Your task to perform on an android device: Search for "usb-c to usb-b" on costco.com, select the first entry, and add it to the cart. Image 0: 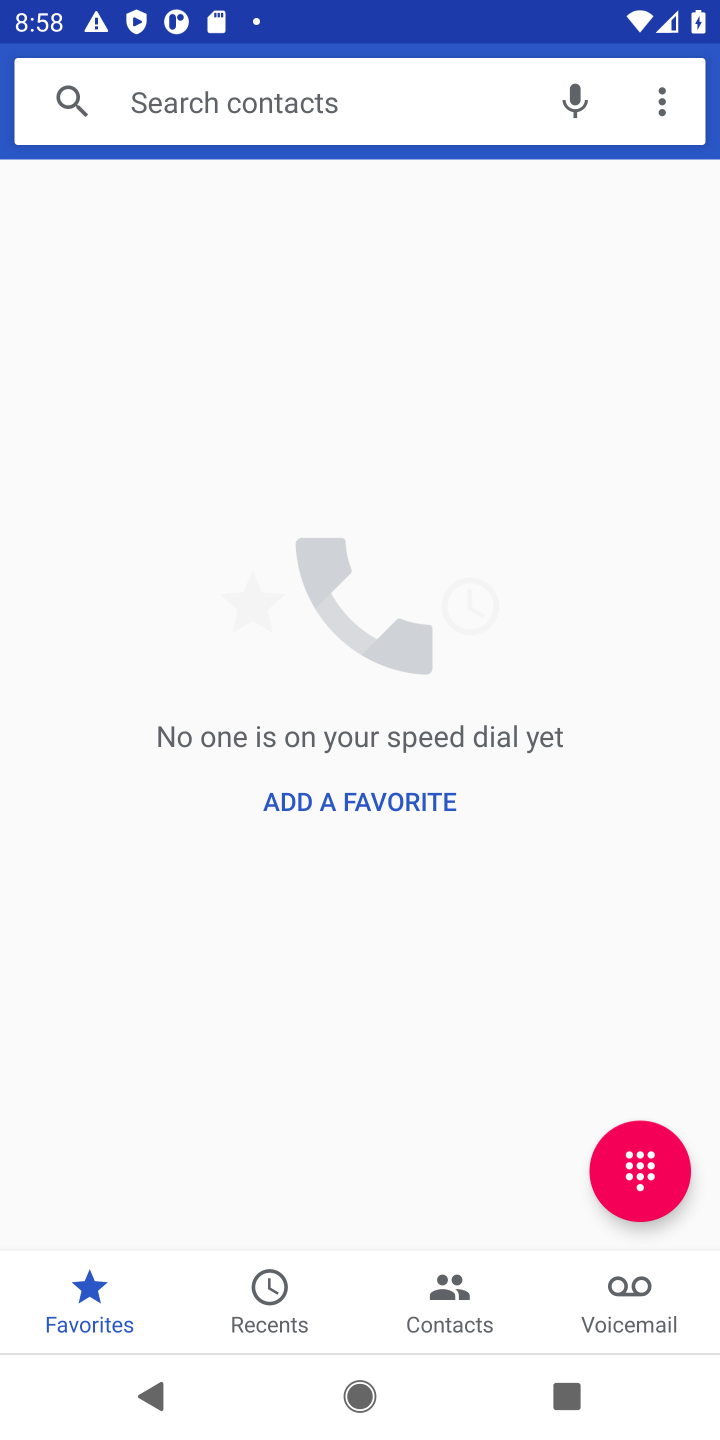
Step 0: press home button
Your task to perform on an android device: Search for "usb-c to usb-b" on costco.com, select the first entry, and add it to the cart. Image 1: 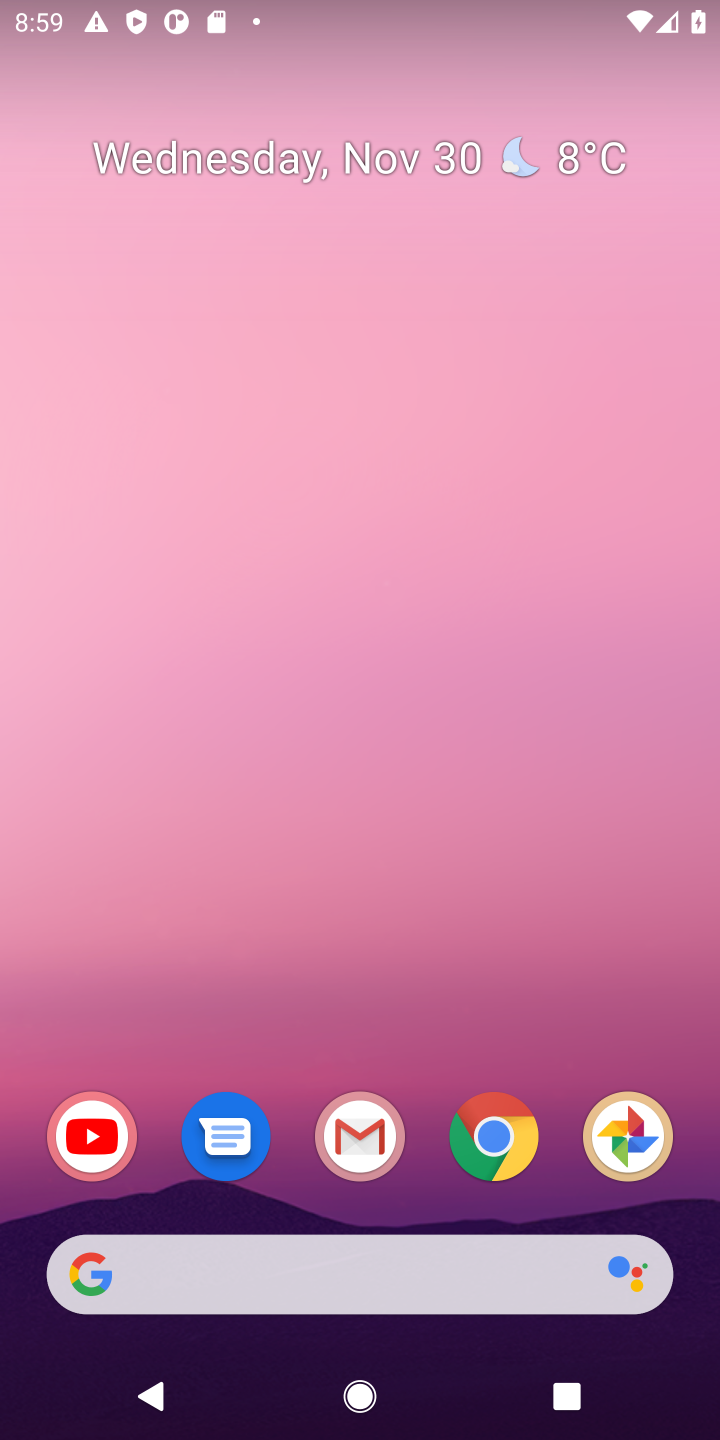
Step 1: click (511, 1139)
Your task to perform on an android device: Search for "usb-c to usb-b" on costco.com, select the first entry, and add it to the cart. Image 2: 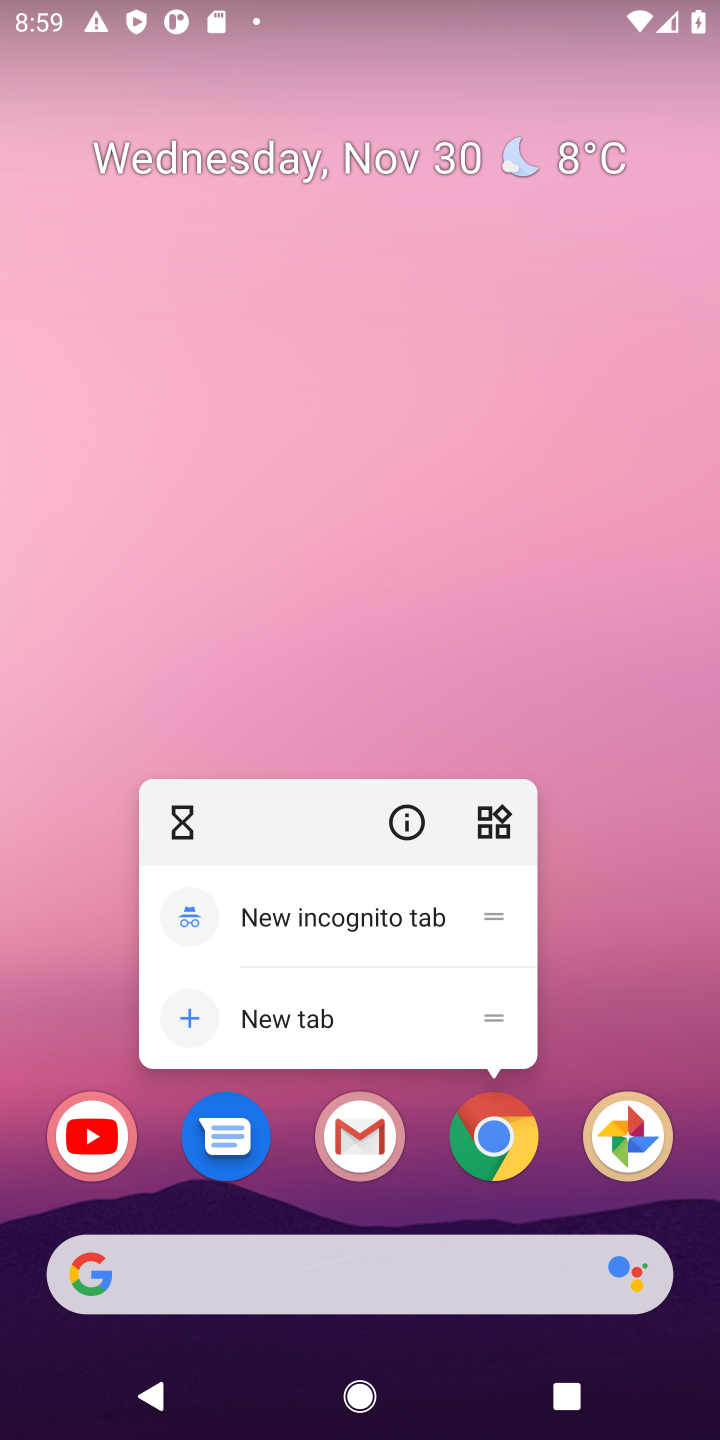
Step 2: click (511, 1139)
Your task to perform on an android device: Search for "usb-c to usb-b" on costco.com, select the first entry, and add it to the cart. Image 3: 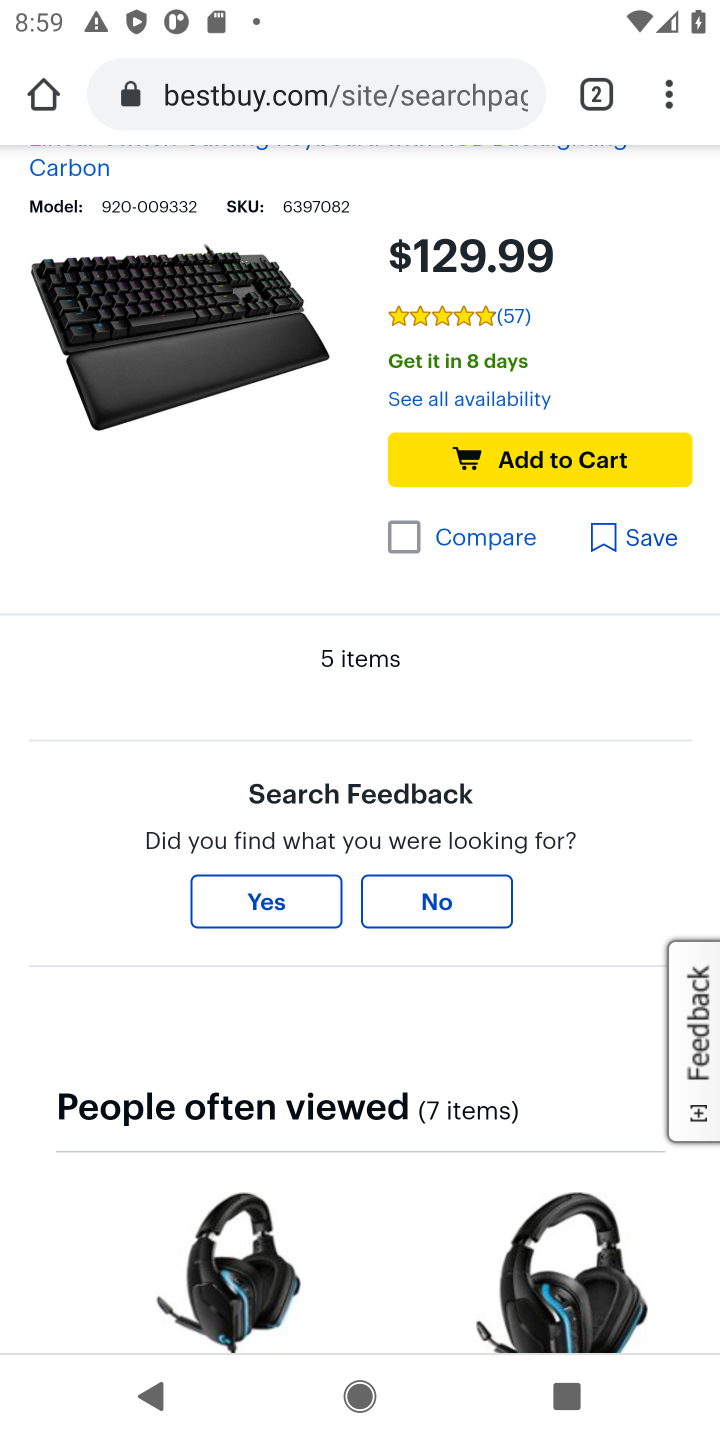
Step 3: click (318, 97)
Your task to perform on an android device: Search for "usb-c to usb-b" on costco.com, select the first entry, and add it to the cart. Image 4: 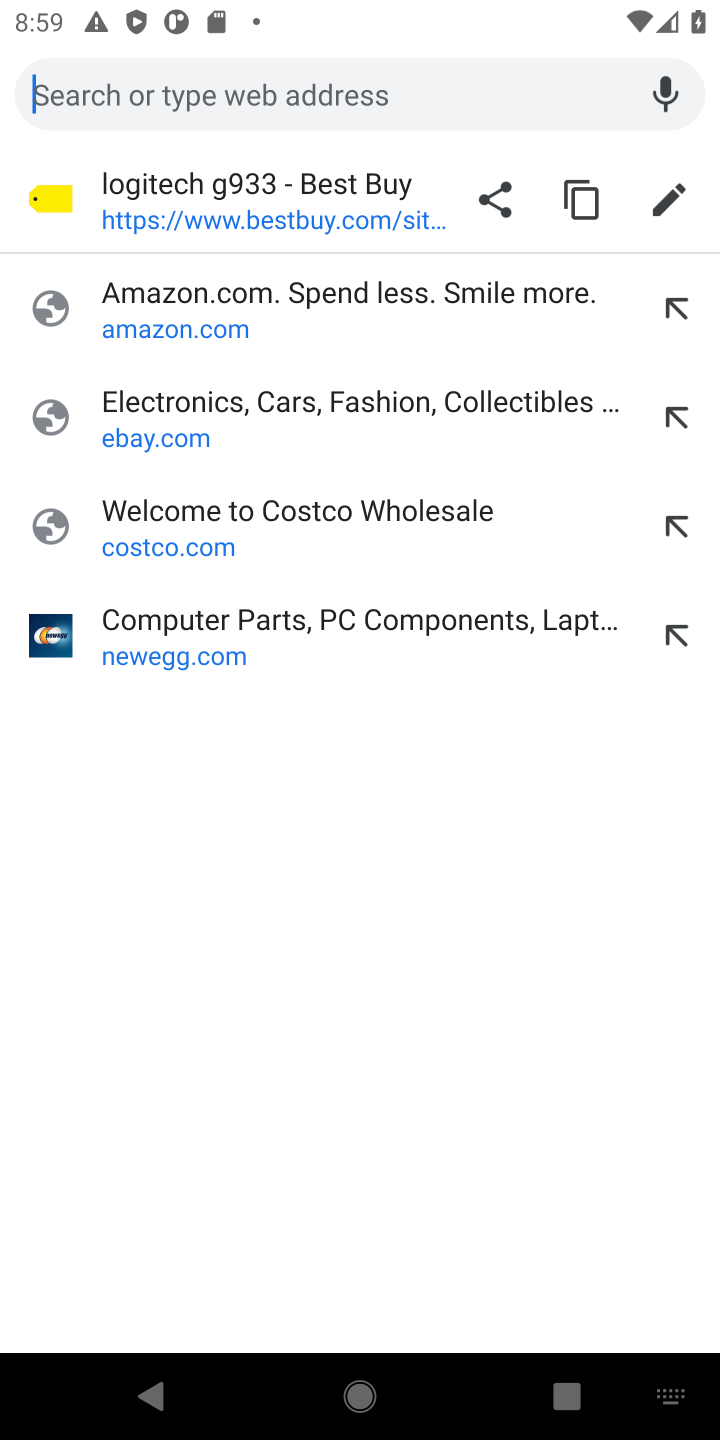
Step 4: click (147, 530)
Your task to perform on an android device: Search for "usb-c to usb-b" on costco.com, select the first entry, and add it to the cart. Image 5: 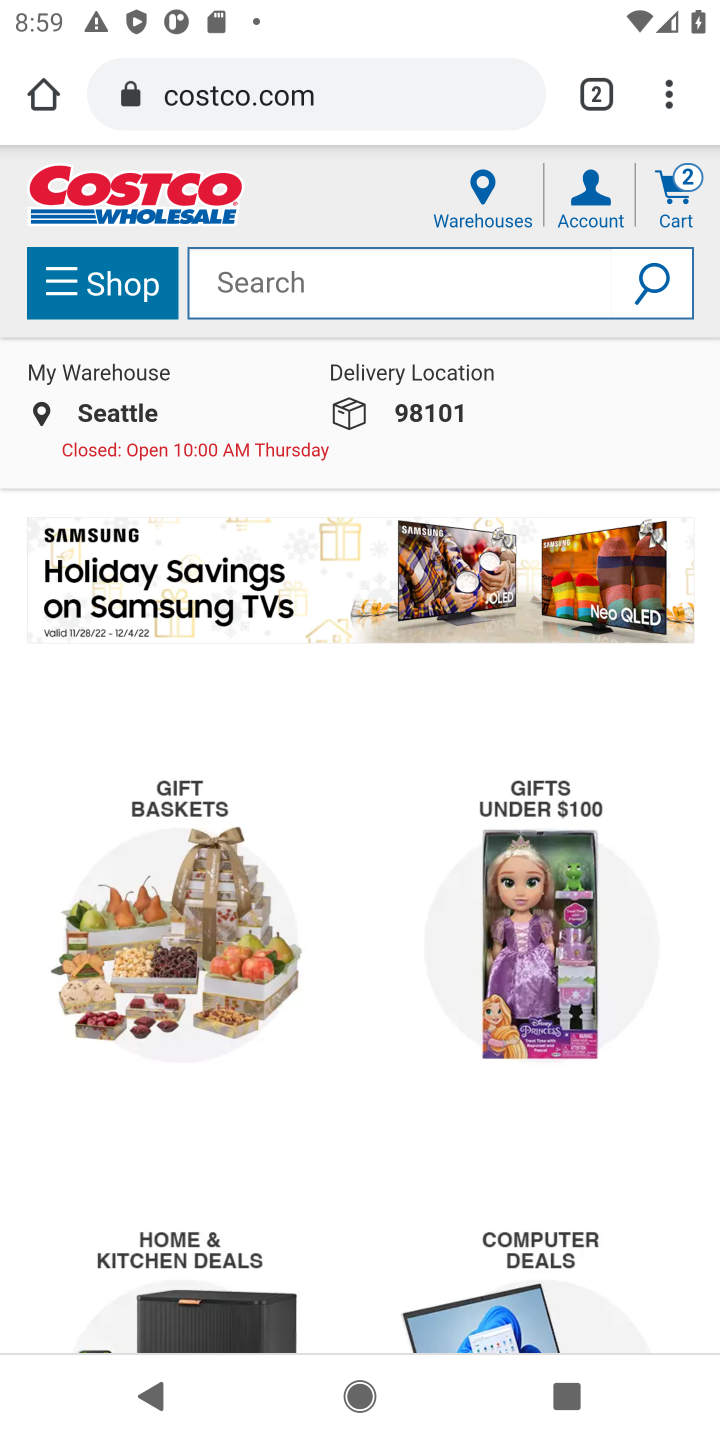
Step 5: click (270, 279)
Your task to perform on an android device: Search for "usb-c to usb-b" on costco.com, select the first entry, and add it to the cart. Image 6: 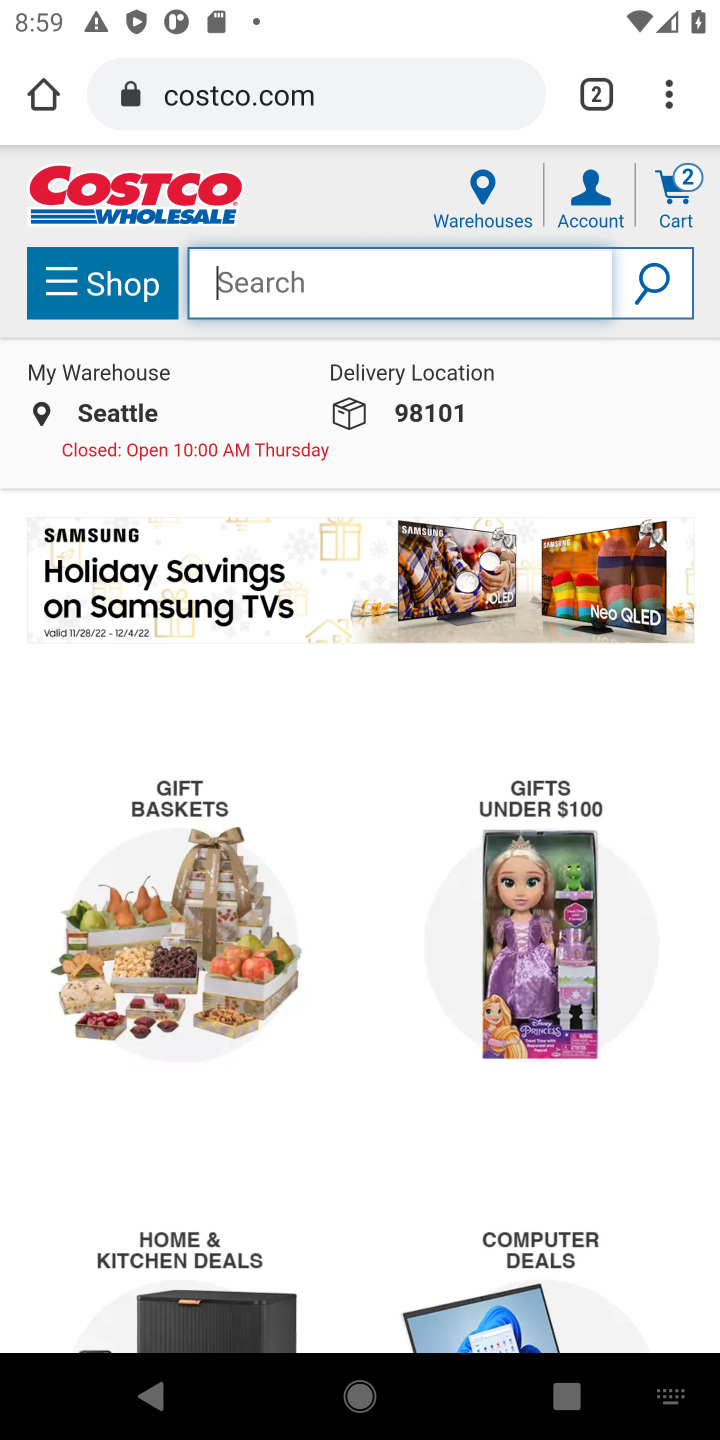
Step 6: click (256, 298)
Your task to perform on an android device: Search for "usb-c to usb-b" on costco.com, select the first entry, and add it to the cart. Image 7: 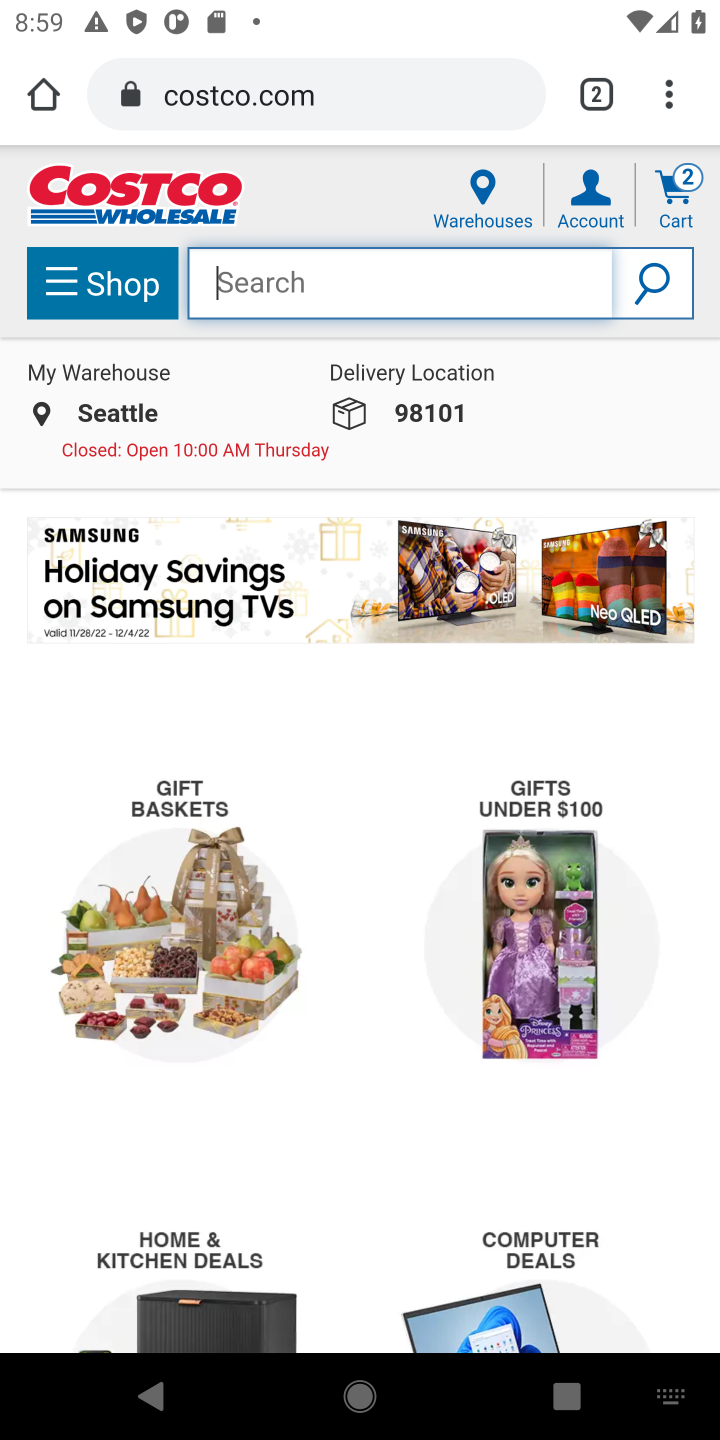
Step 7: type "usb-c to usb-b"
Your task to perform on an android device: Search for "usb-c to usb-b" on costco.com, select the first entry, and add it to the cart. Image 8: 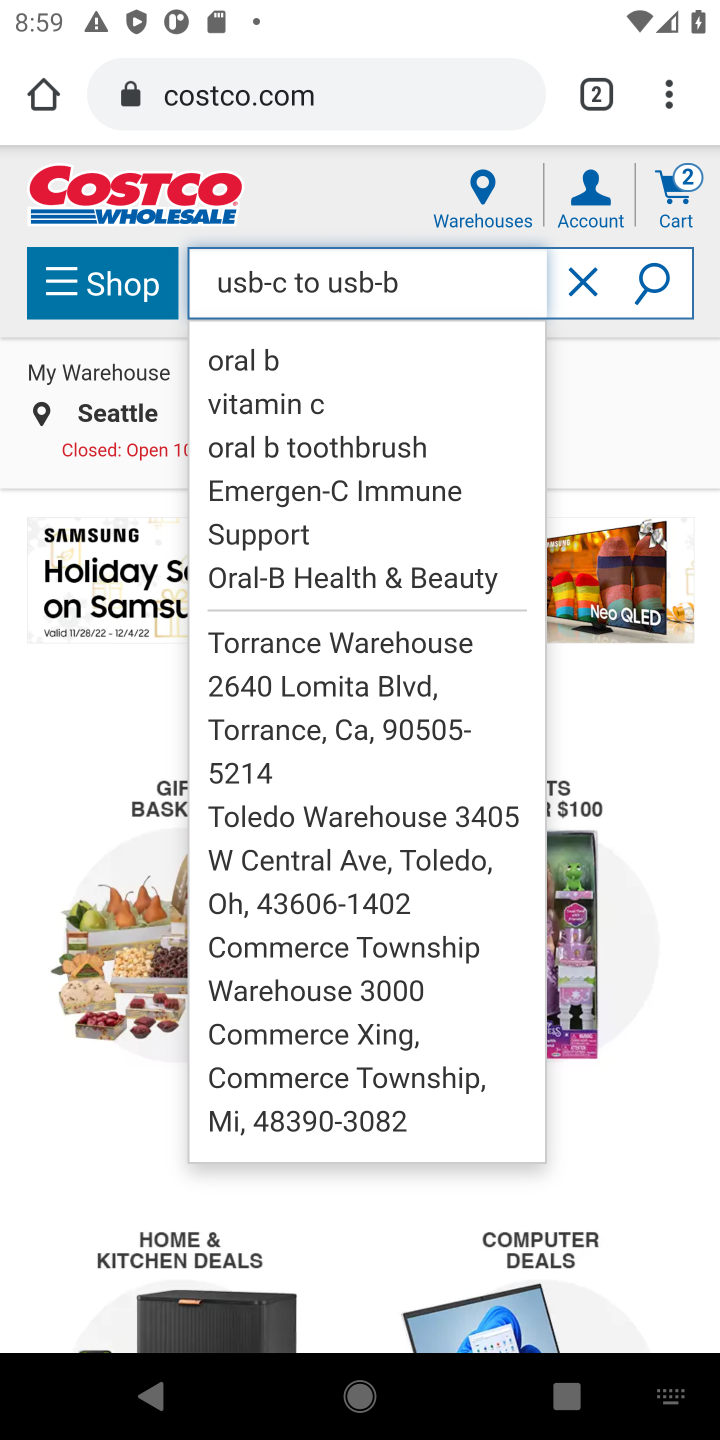
Step 8: click (657, 282)
Your task to perform on an android device: Search for "usb-c to usb-b" on costco.com, select the first entry, and add it to the cart. Image 9: 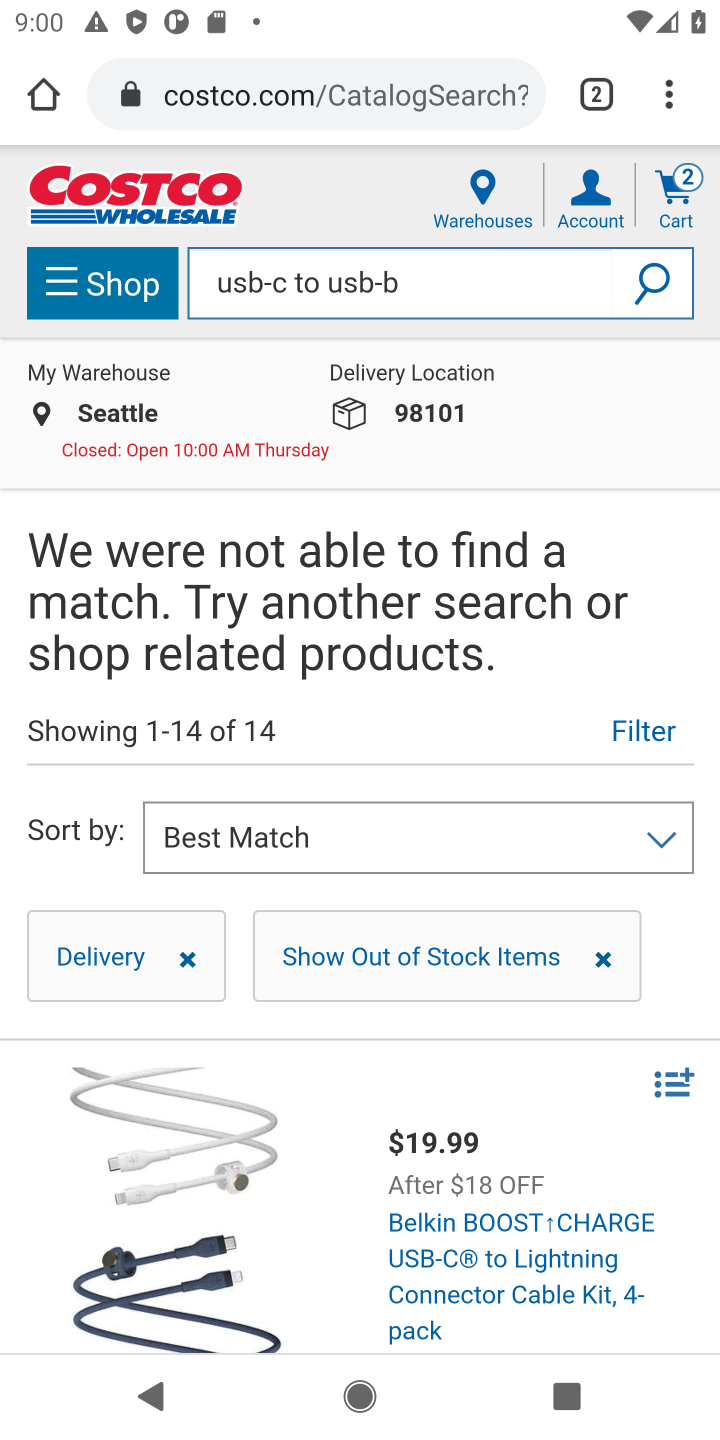
Step 9: task complete